Your task to perform on an android device: add a contact in the contacts app Image 0: 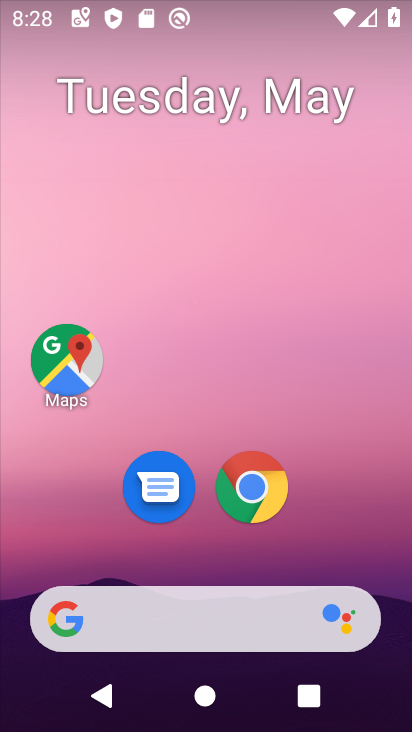
Step 0: drag from (373, 541) to (373, 230)
Your task to perform on an android device: add a contact in the contacts app Image 1: 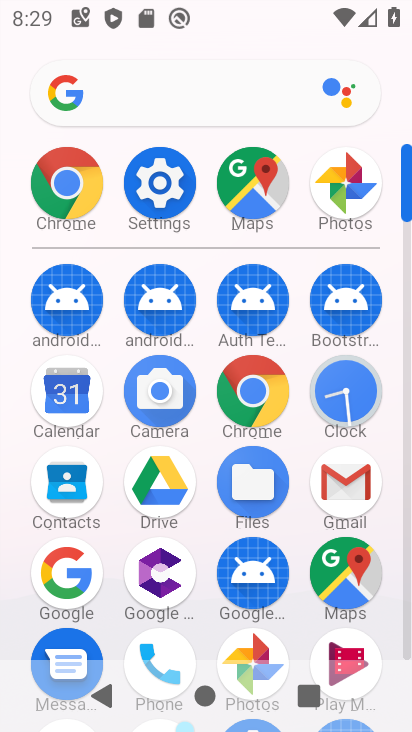
Step 1: drag from (115, 539) to (114, 357)
Your task to perform on an android device: add a contact in the contacts app Image 2: 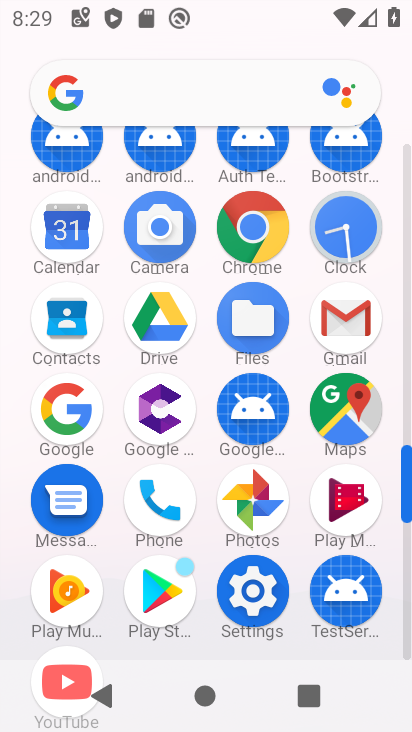
Step 2: click (81, 328)
Your task to perform on an android device: add a contact in the contacts app Image 3: 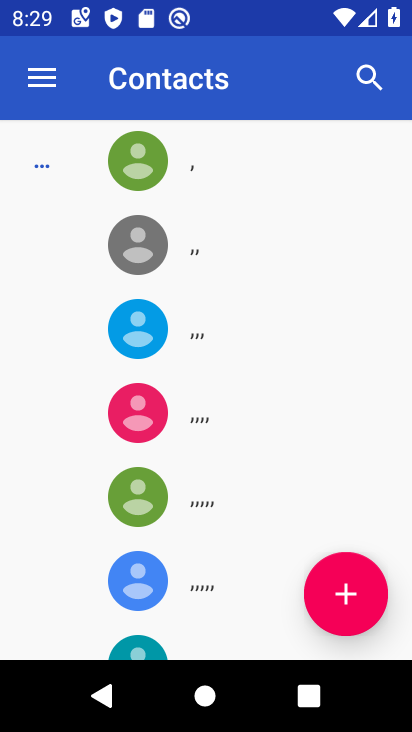
Step 3: click (347, 612)
Your task to perform on an android device: add a contact in the contacts app Image 4: 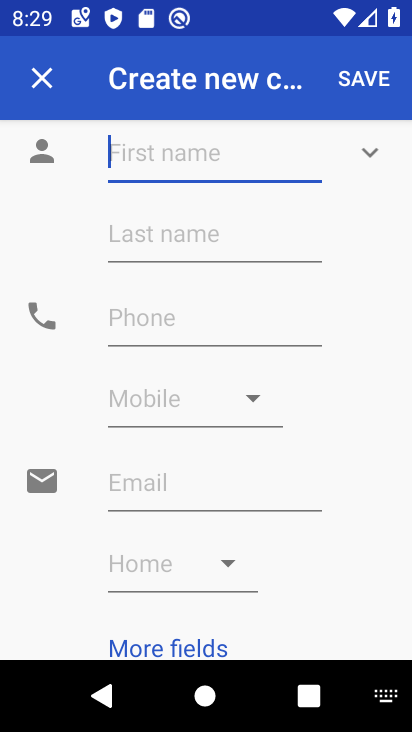
Step 4: click (233, 168)
Your task to perform on an android device: add a contact in the contacts app Image 5: 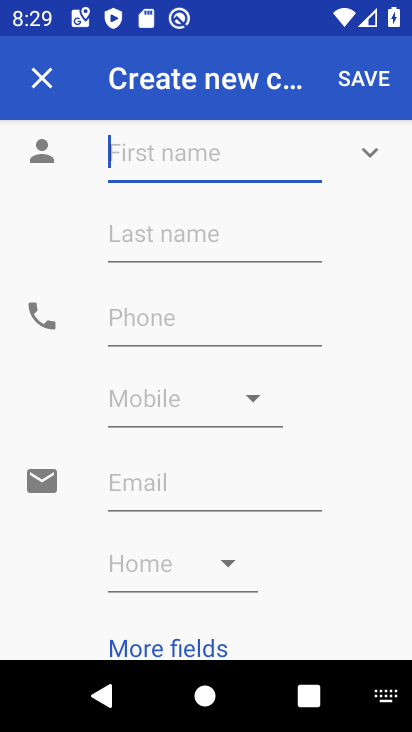
Step 5: type "kkkk"
Your task to perform on an android device: add a contact in the contacts app Image 6: 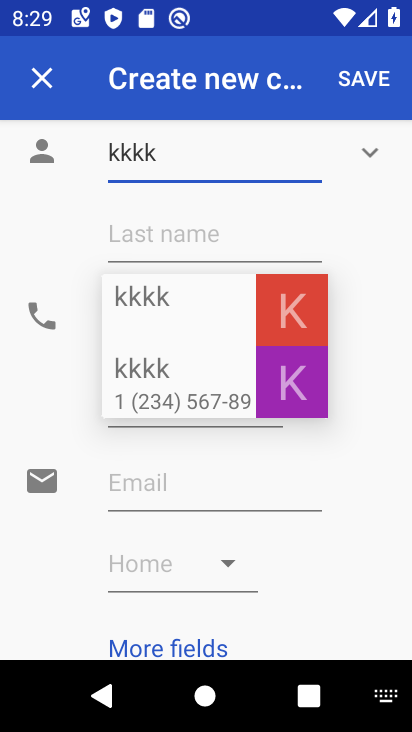
Step 6: click (399, 327)
Your task to perform on an android device: add a contact in the contacts app Image 7: 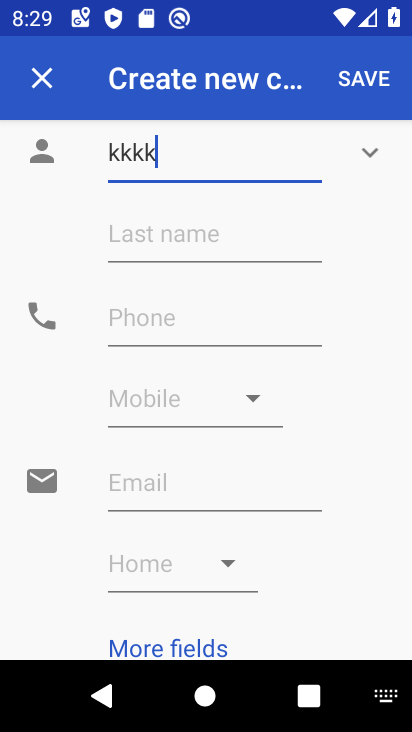
Step 7: click (215, 339)
Your task to perform on an android device: add a contact in the contacts app Image 8: 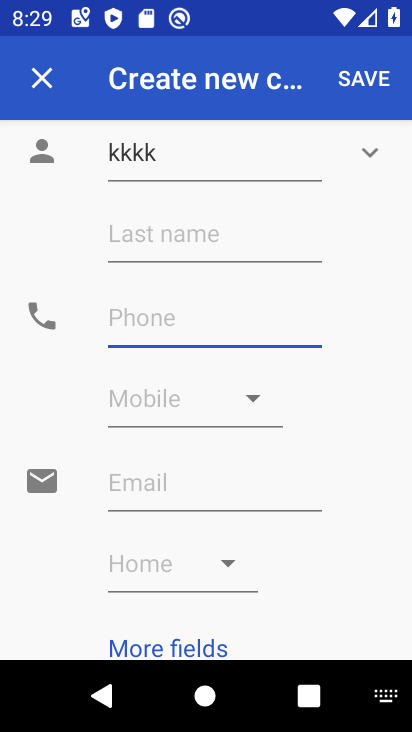
Step 8: type "1234567890"
Your task to perform on an android device: add a contact in the contacts app Image 9: 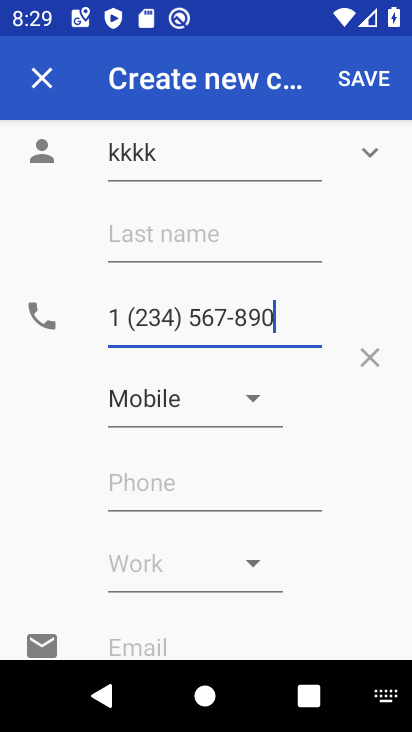
Step 9: click (377, 83)
Your task to perform on an android device: add a contact in the contacts app Image 10: 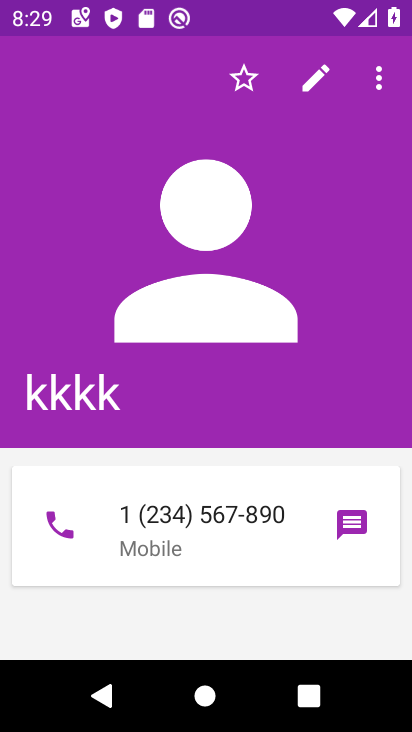
Step 10: task complete